Your task to perform on an android device: What is the news today? Image 0: 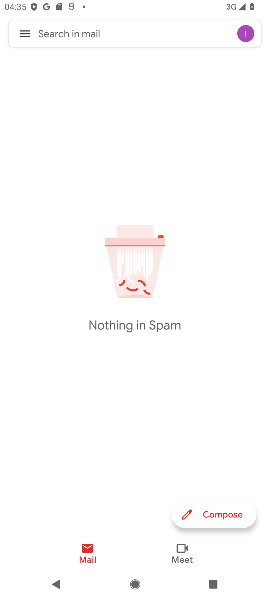
Step 0: press home button
Your task to perform on an android device: What is the news today? Image 1: 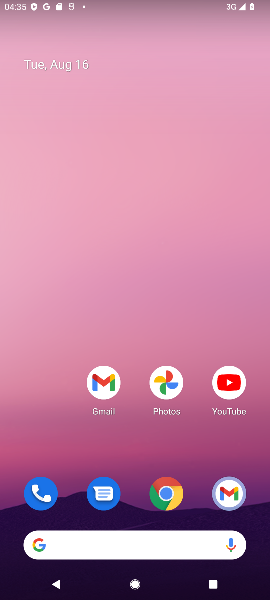
Step 1: task complete